Your task to perform on an android device: turn on data saver in the chrome app Image 0: 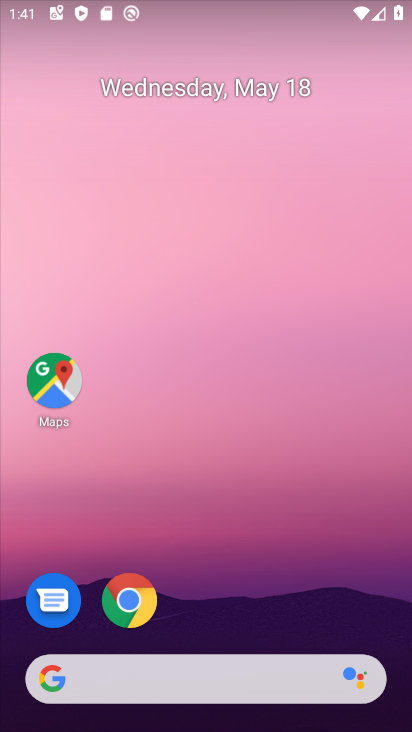
Step 0: click (129, 603)
Your task to perform on an android device: turn on data saver in the chrome app Image 1: 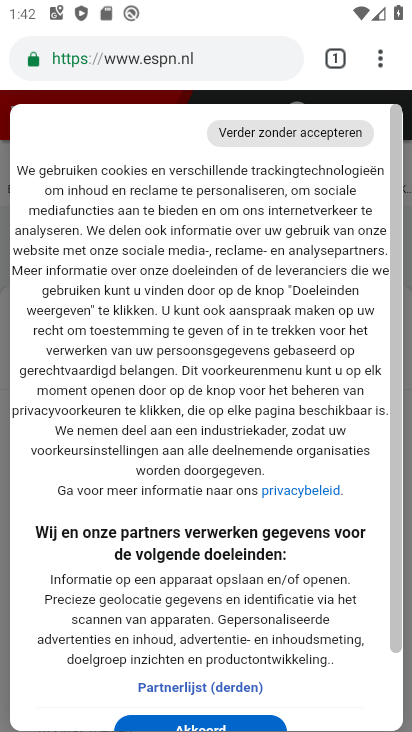
Step 1: click (380, 59)
Your task to perform on an android device: turn on data saver in the chrome app Image 2: 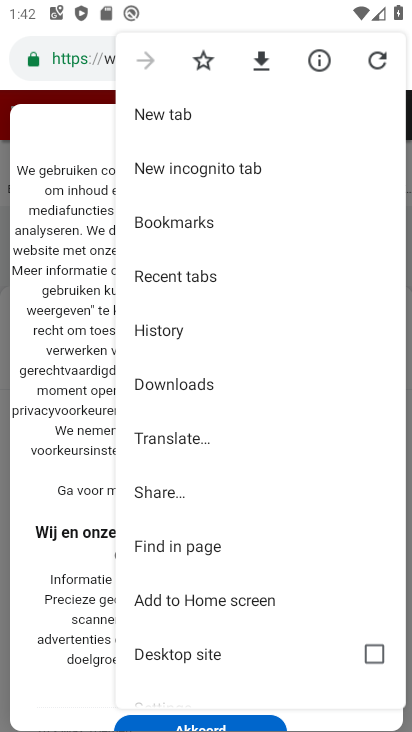
Step 2: drag from (217, 513) to (270, 421)
Your task to perform on an android device: turn on data saver in the chrome app Image 3: 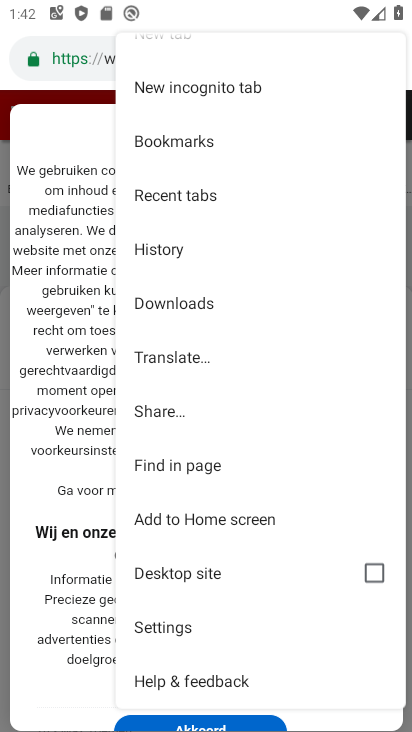
Step 3: drag from (207, 587) to (281, 484)
Your task to perform on an android device: turn on data saver in the chrome app Image 4: 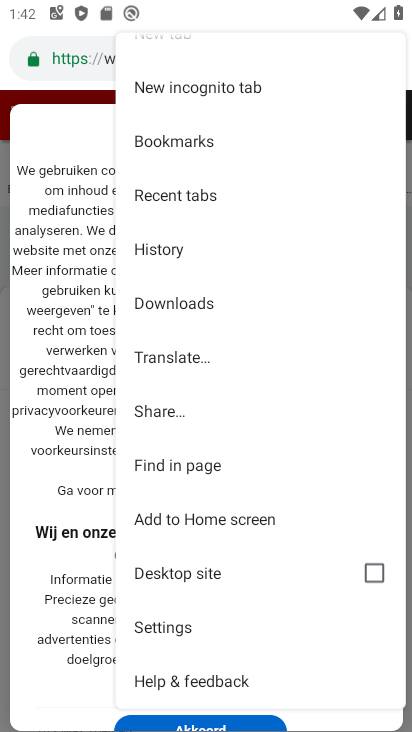
Step 4: click (162, 634)
Your task to perform on an android device: turn on data saver in the chrome app Image 5: 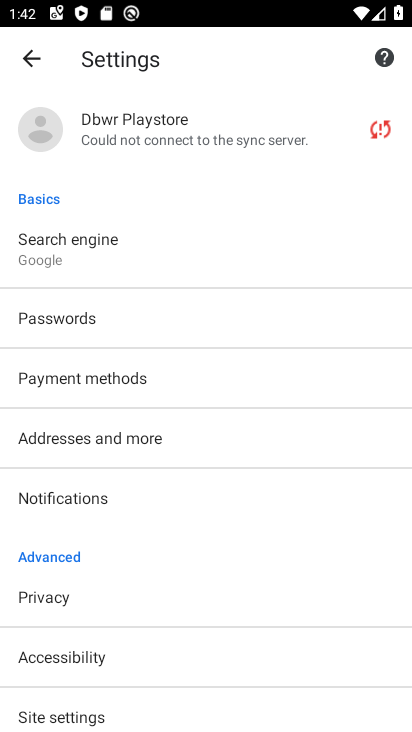
Step 5: drag from (106, 573) to (153, 495)
Your task to perform on an android device: turn on data saver in the chrome app Image 6: 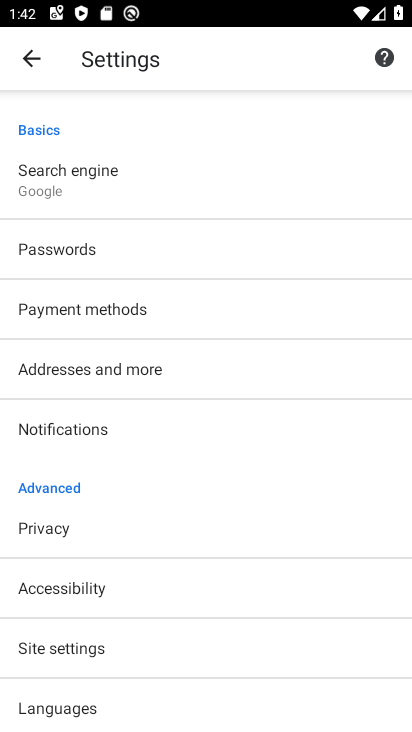
Step 6: drag from (112, 549) to (121, 493)
Your task to perform on an android device: turn on data saver in the chrome app Image 7: 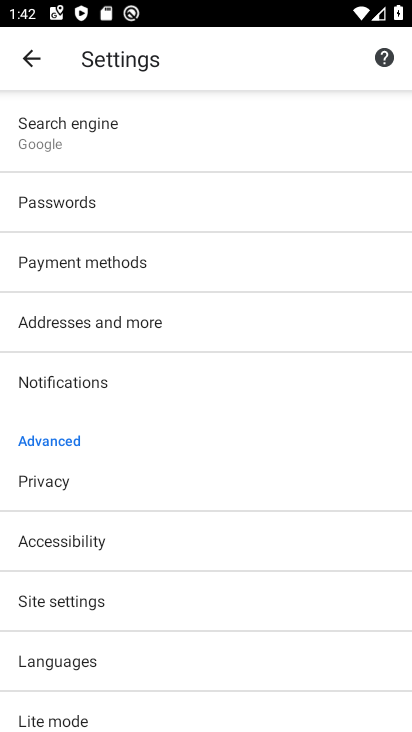
Step 7: drag from (114, 658) to (162, 569)
Your task to perform on an android device: turn on data saver in the chrome app Image 8: 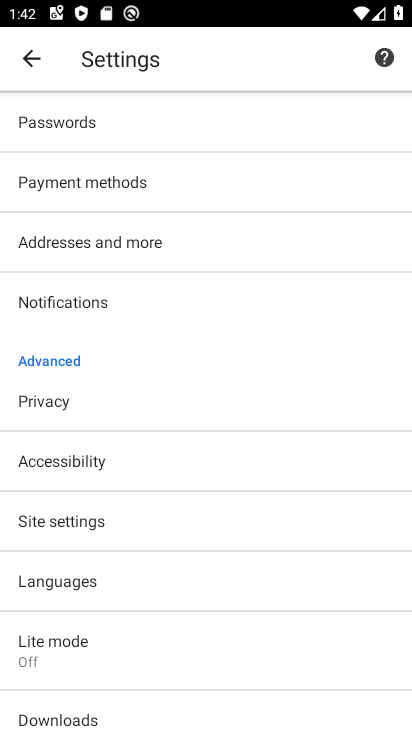
Step 8: click (60, 639)
Your task to perform on an android device: turn on data saver in the chrome app Image 9: 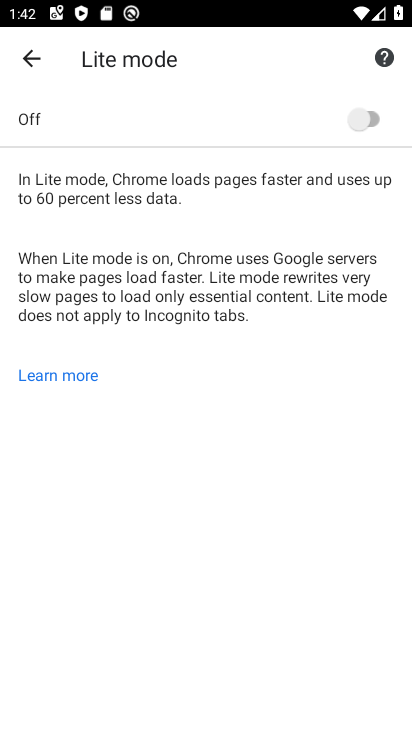
Step 9: click (360, 128)
Your task to perform on an android device: turn on data saver in the chrome app Image 10: 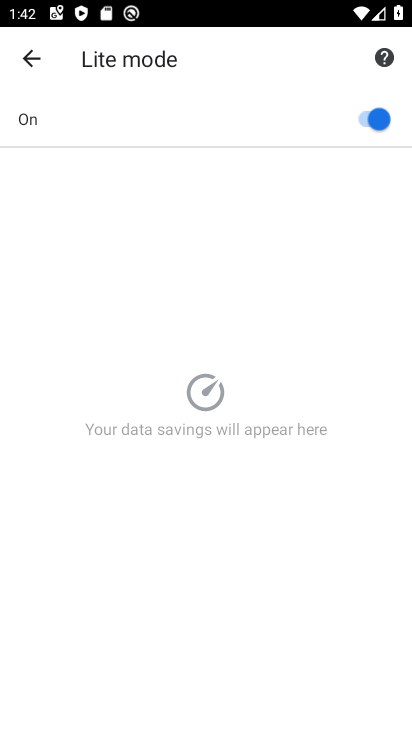
Step 10: task complete